Your task to perform on an android device: turn smart compose on in the gmail app Image 0: 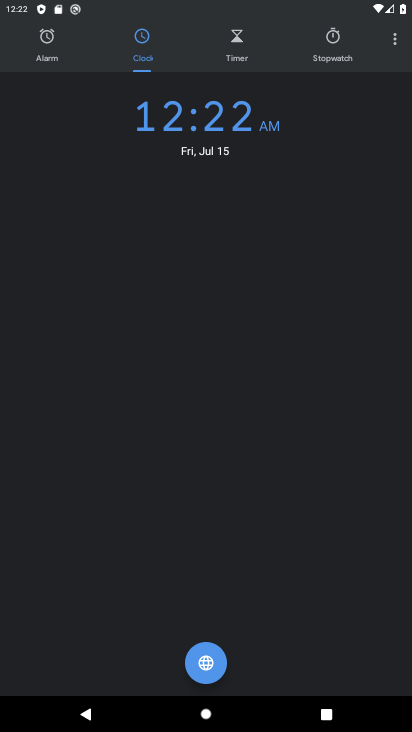
Step 0: press home button
Your task to perform on an android device: turn smart compose on in the gmail app Image 1: 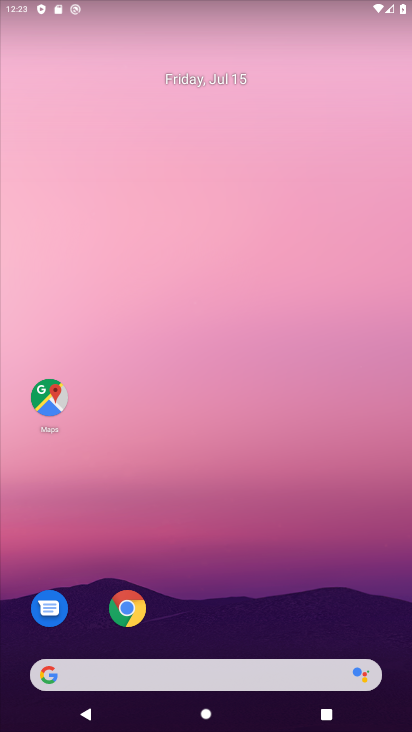
Step 1: drag from (193, 601) to (177, 76)
Your task to perform on an android device: turn smart compose on in the gmail app Image 2: 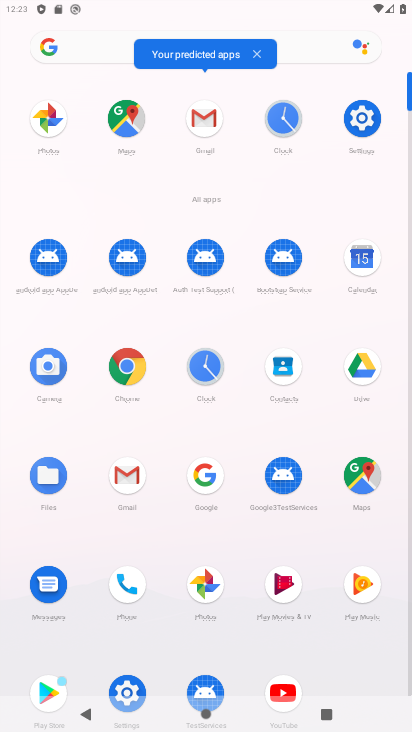
Step 2: click (126, 457)
Your task to perform on an android device: turn smart compose on in the gmail app Image 3: 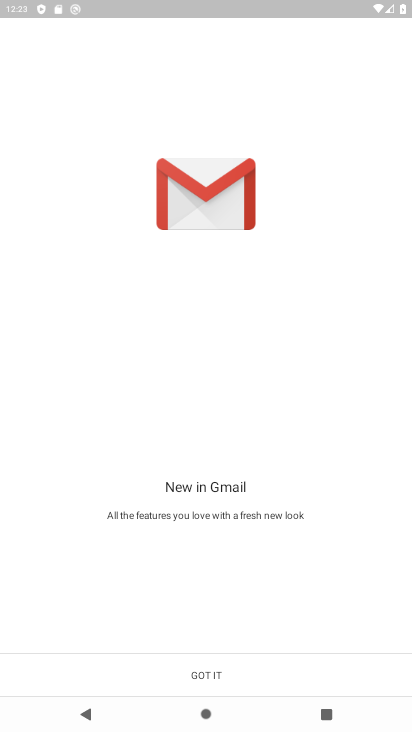
Step 3: click (199, 661)
Your task to perform on an android device: turn smart compose on in the gmail app Image 4: 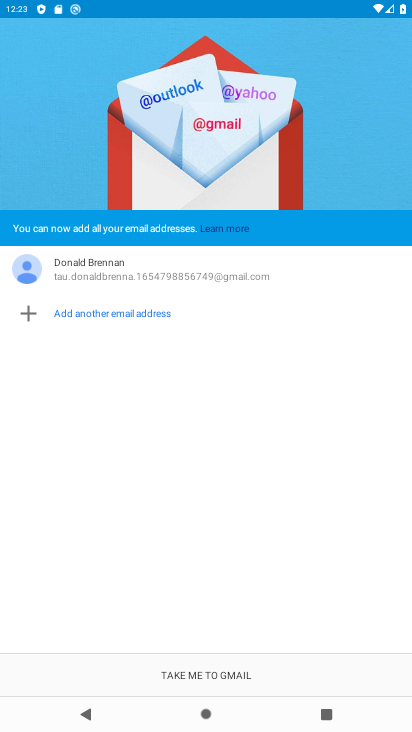
Step 4: click (199, 661)
Your task to perform on an android device: turn smart compose on in the gmail app Image 5: 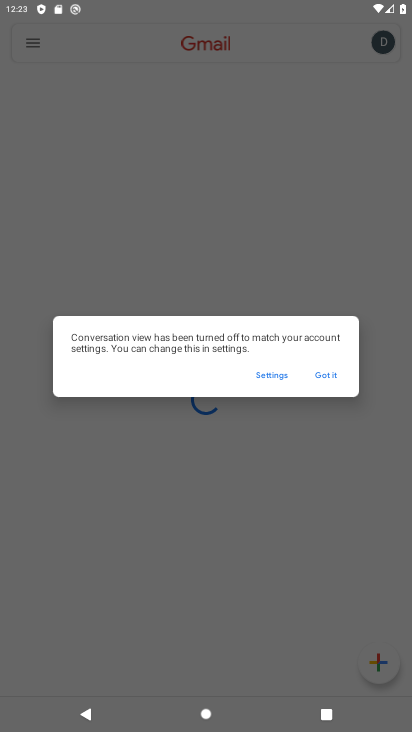
Step 5: click (333, 371)
Your task to perform on an android device: turn smart compose on in the gmail app Image 6: 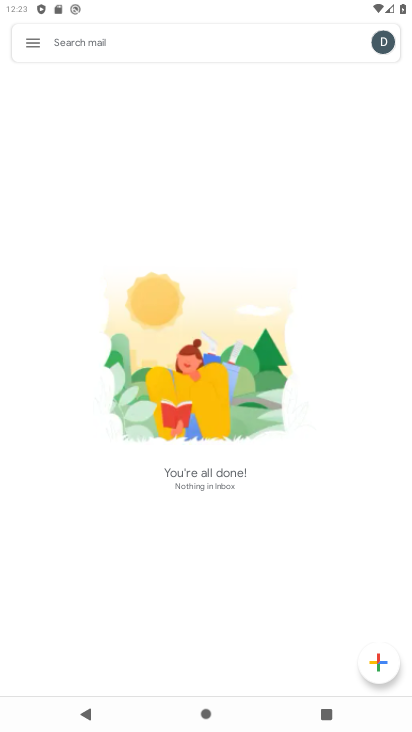
Step 6: click (29, 41)
Your task to perform on an android device: turn smart compose on in the gmail app Image 7: 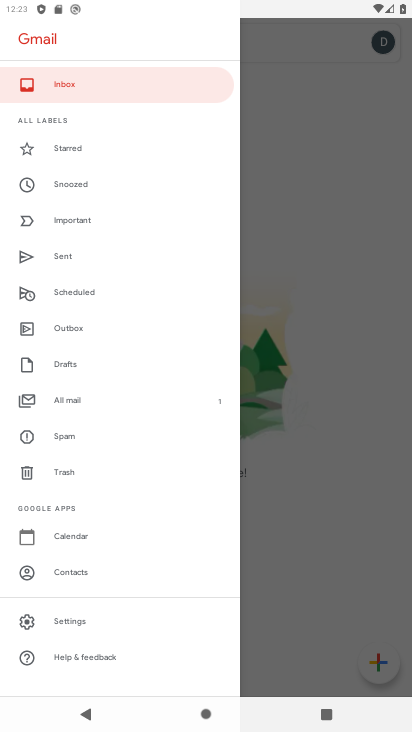
Step 7: click (63, 621)
Your task to perform on an android device: turn smart compose on in the gmail app Image 8: 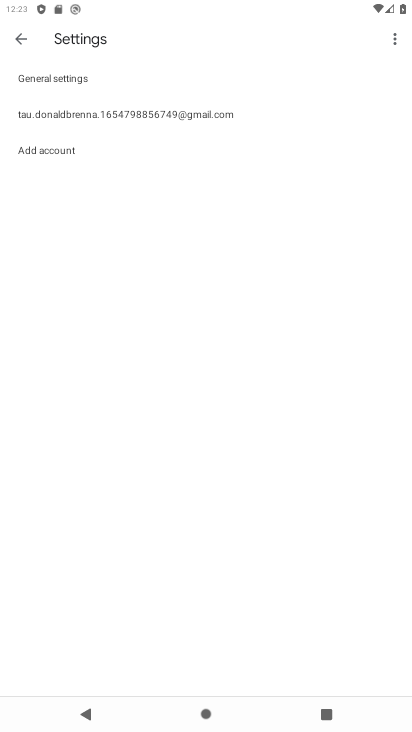
Step 8: click (107, 151)
Your task to perform on an android device: turn smart compose on in the gmail app Image 9: 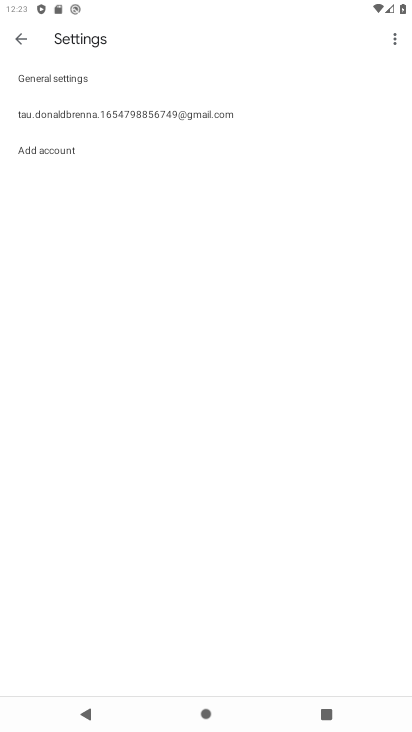
Step 9: click (124, 111)
Your task to perform on an android device: turn smart compose on in the gmail app Image 10: 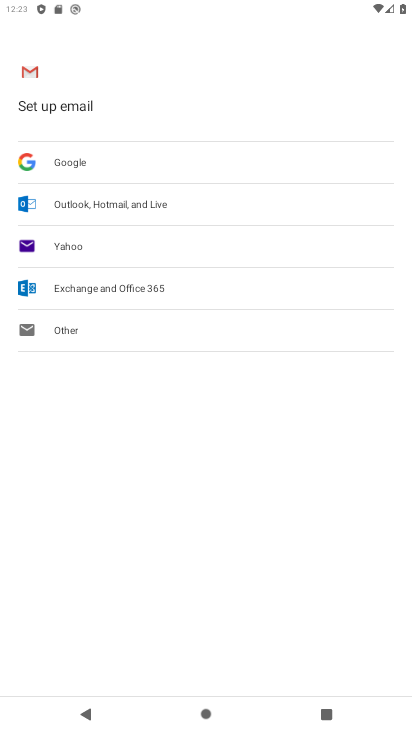
Step 10: press back button
Your task to perform on an android device: turn smart compose on in the gmail app Image 11: 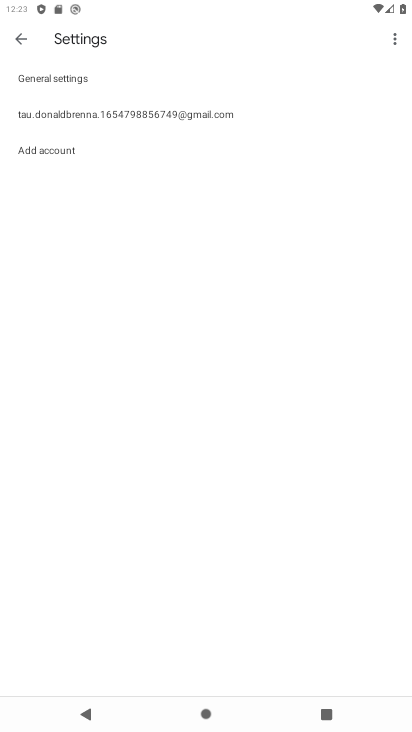
Step 11: click (63, 114)
Your task to perform on an android device: turn smart compose on in the gmail app Image 12: 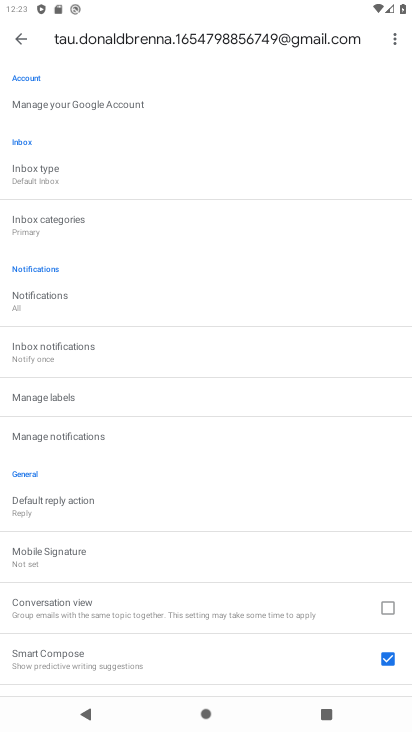
Step 12: task complete